Your task to perform on an android device: Is it going to rain tomorrow? Image 0: 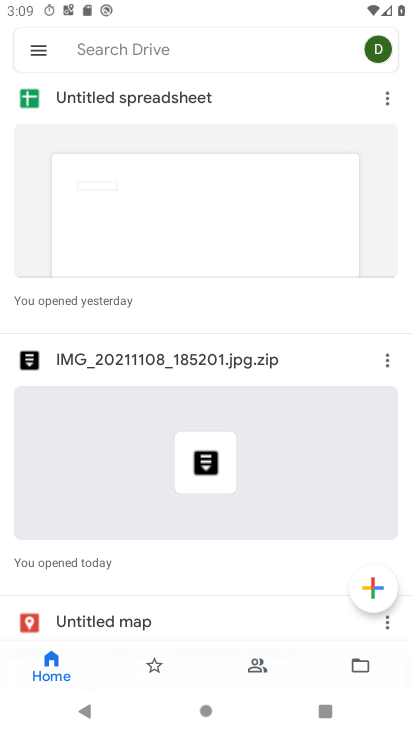
Step 0: press home button
Your task to perform on an android device: Is it going to rain tomorrow? Image 1: 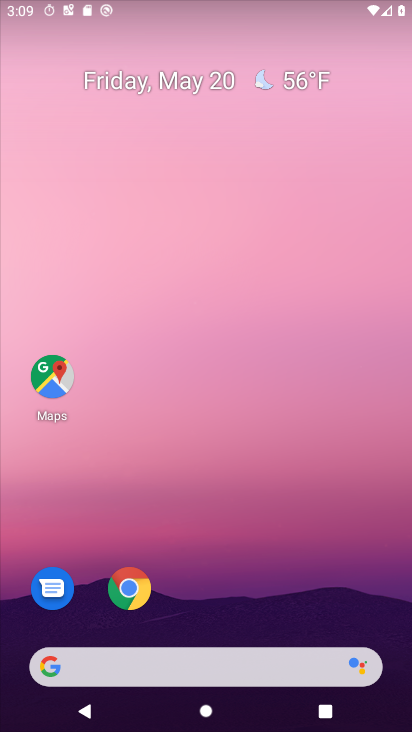
Step 1: click (143, 664)
Your task to perform on an android device: Is it going to rain tomorrow? Image 2: 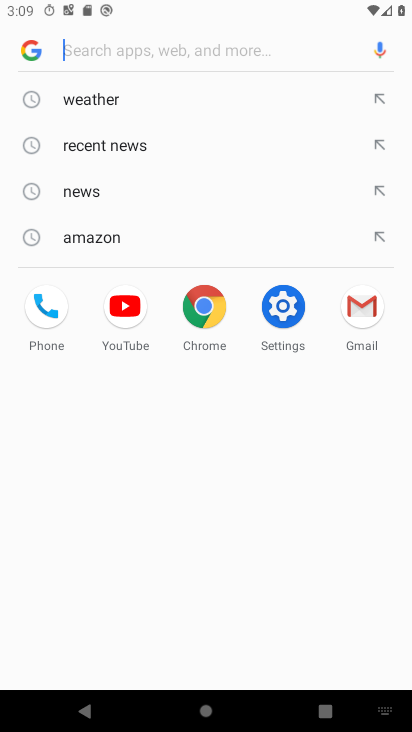
Step 2: click (113, 97)
Your task to perform on an android device: Is it going to rain tomorrow? Image 3: 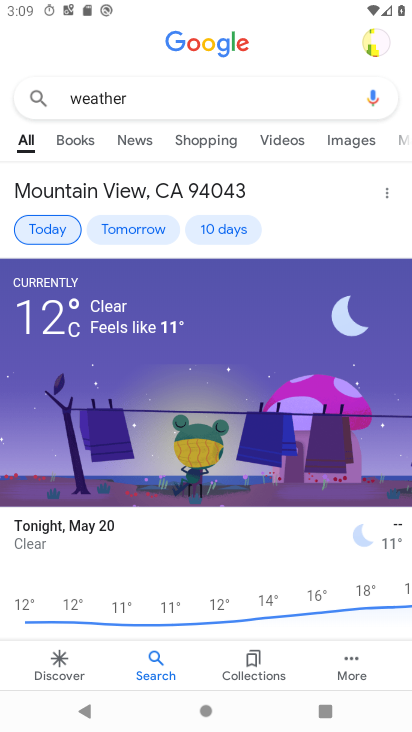
Step 3: task complete